Your task to perform on an android device: Do I have any events tomorrow? Image 0: 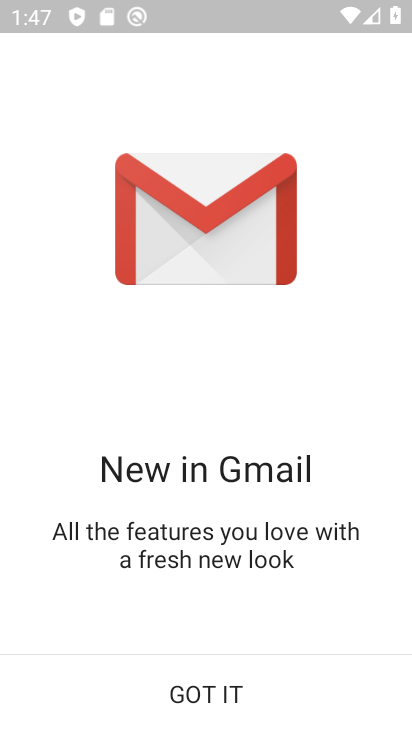
Step 0: press home button
Your task to perform on an android device: Do I have any events tomorrow? Image 1: 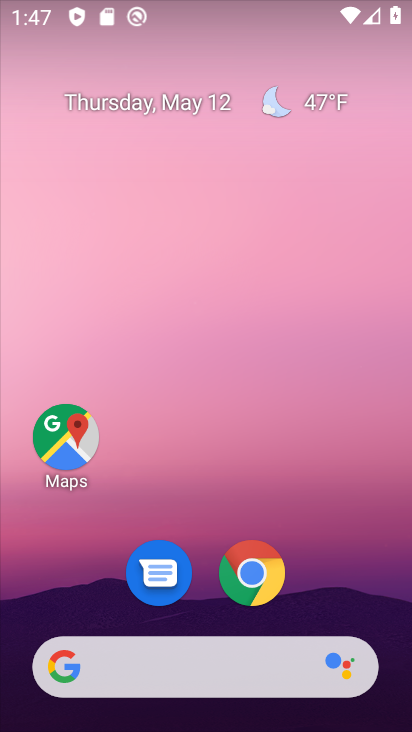
Step 1: click (187, 106)
Your task to perform on an android device: Do I have any events tomorrow? Image 2: 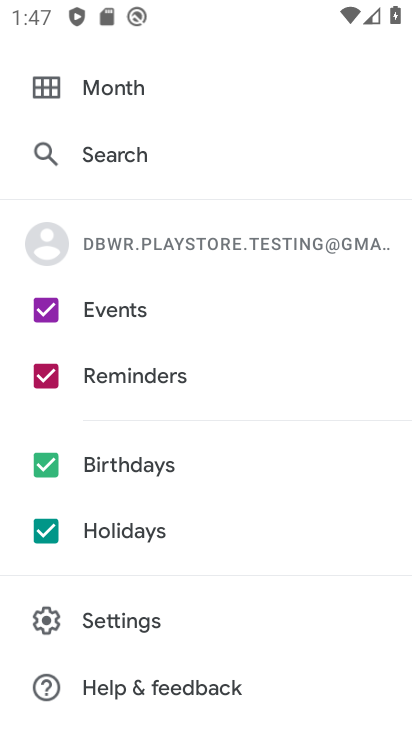
Step 2: drag from (161, 74) to (136, 676)
Your task to perform on an android device: Do I have any events tomorrow? Image 3: 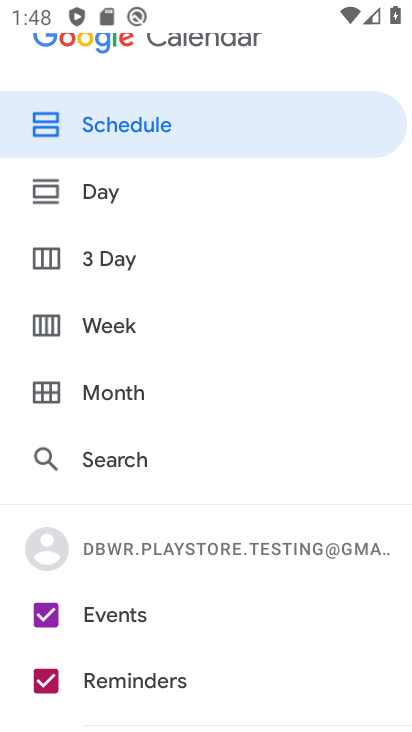
Step 3: press back button
Your task to perform on an android device: Do I have any events tomorrow? Image 4: 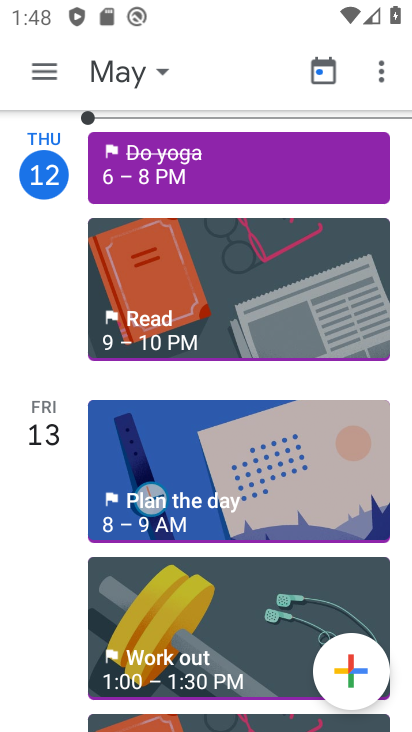
Step 4: click (83, 97)
Your task to perform on an android device: Do I have any events tomorrow? Image 5: 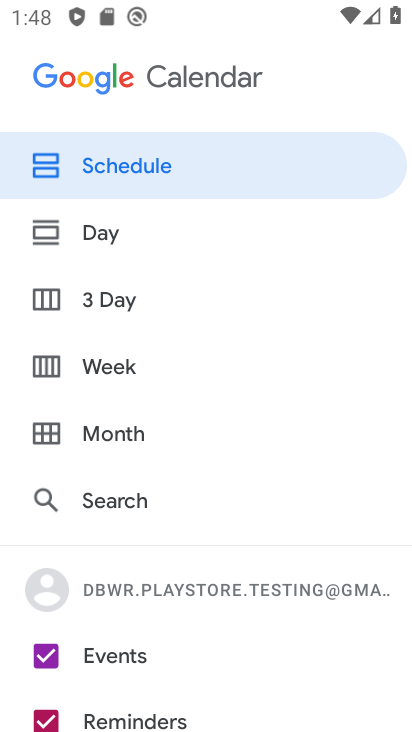
Step 5: press back button
Your task to perform on an android device: Do I have any events tomorrow? Image 6: 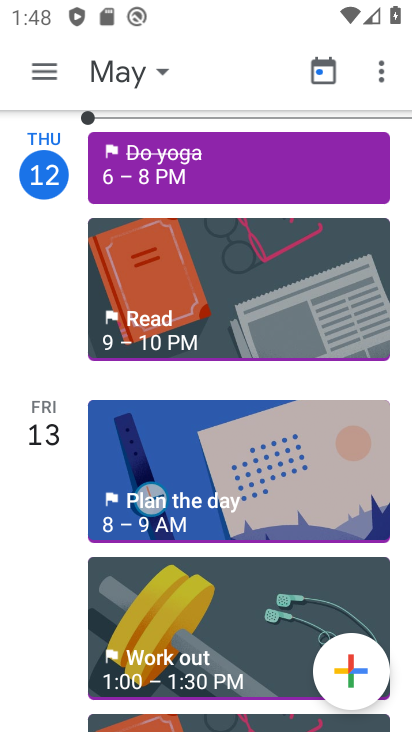
Step 6: drag from (216, 505) to (308, 131)
Your task to perform on an android device: Do I have any events tomorrow? Image 7: 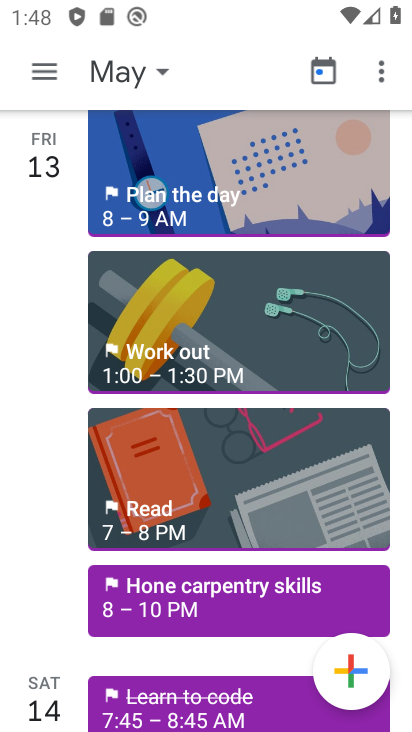
Step 7: click (197, 617)
Your task to perform on an android device: Do I have any events tomorrow? Image 8: 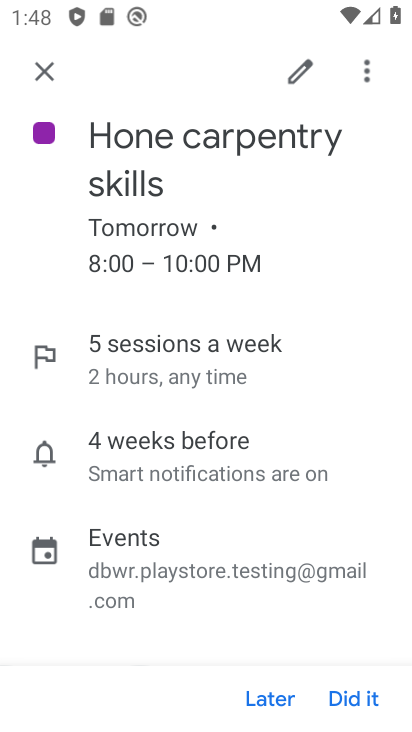
Step 8: task complete